Your task to perform on an android device: toggle notifications settings in the gmail app Image 0: 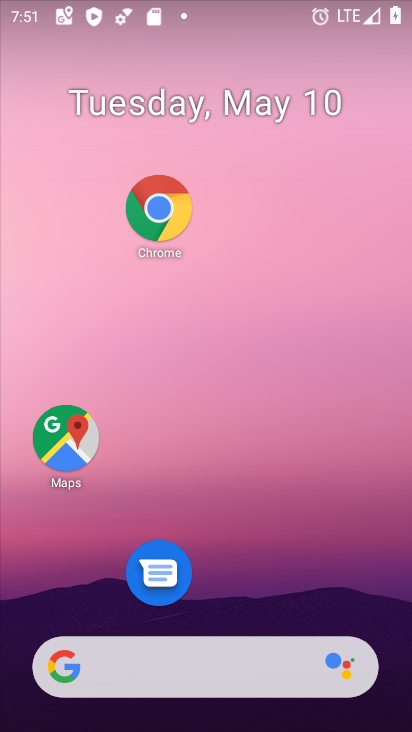
Step 0: drag from (223, 685) to (284, 375)
Your task to perform on an android device: toggle notifications settings in the gmail app Image 1: 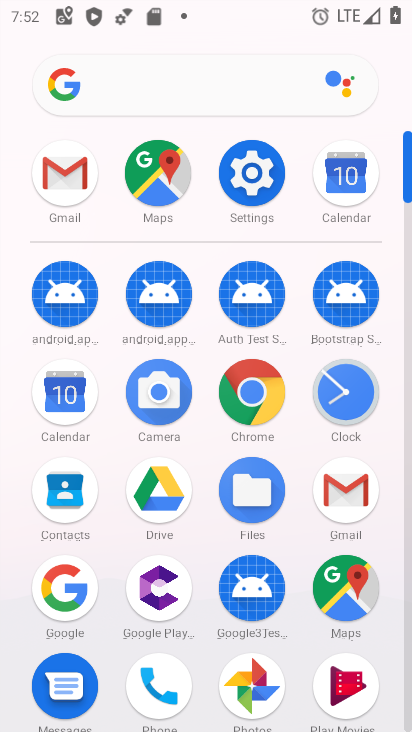
Step 1: click (328, 484)
Your task to perform on an android device: toggle notifications settings in the gmail app Image 2: 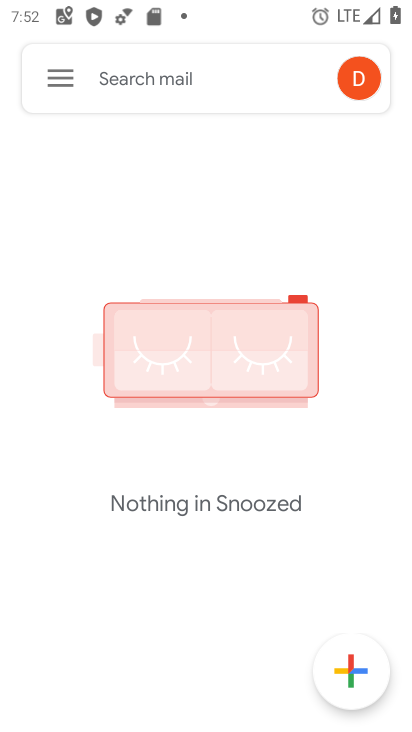
Step 2: click (44, 79)
Your task to perform on an android device: toggle notifications settings in the gmail app Image 3: 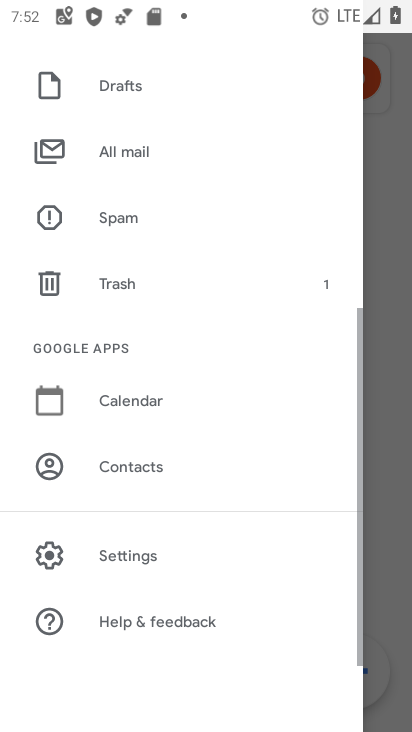
Step 3: click (118, 555)
Your task to perform on an android device: toggle notifications settings in the gmail app Image 4: 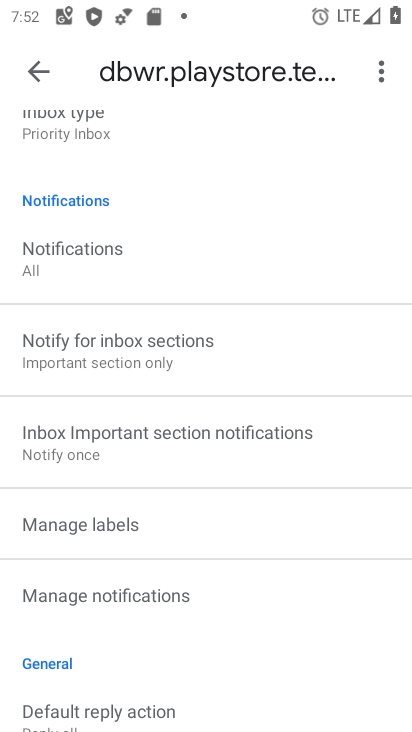
Step 4: click (116, 277)
Your task to perform on an android device: toggle notifications settings in the gmail app Image 5: 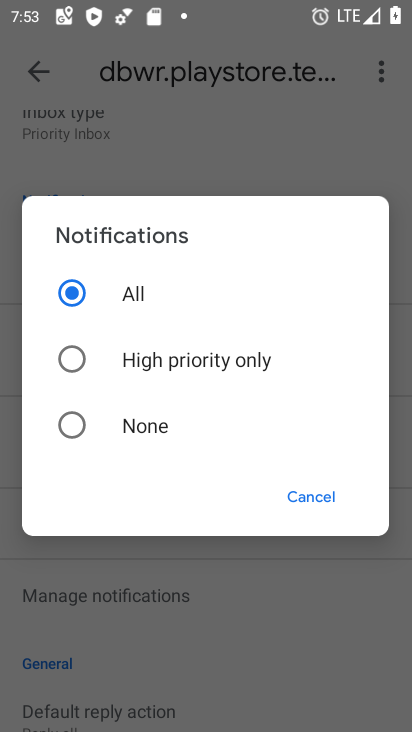
Step 5: task complete